Your task to perform on an android device: Show me productivity apps on the Play Store Image 0: 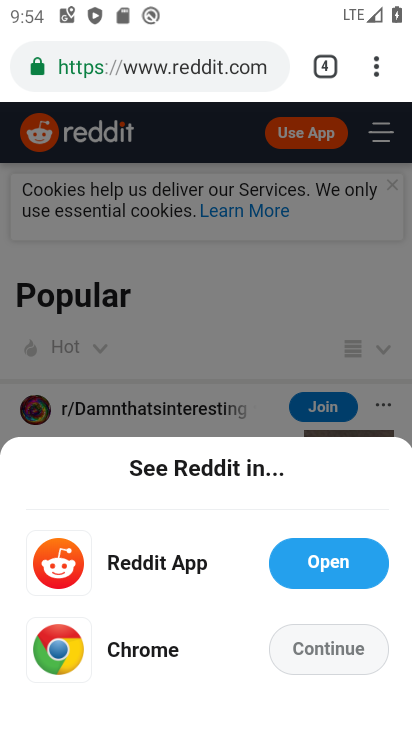
Step 0: click (213, 508)
Your task to perform on an android device: Show me productivity apps on the Play Store Image 1: 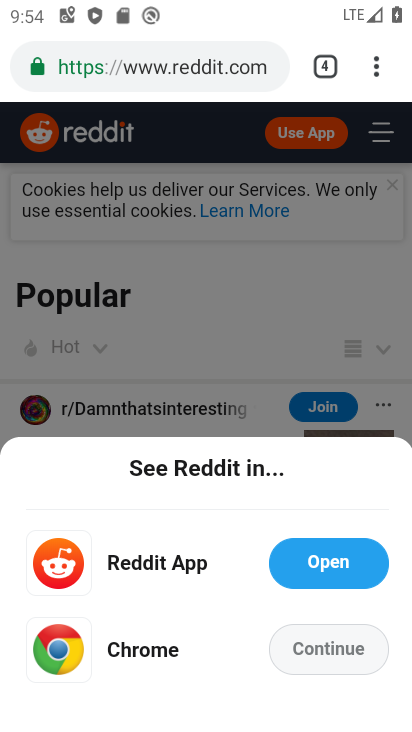
Step 1: press home button
Your task to perform on an android device: Show me productivity apps on the Play Store Image 2: 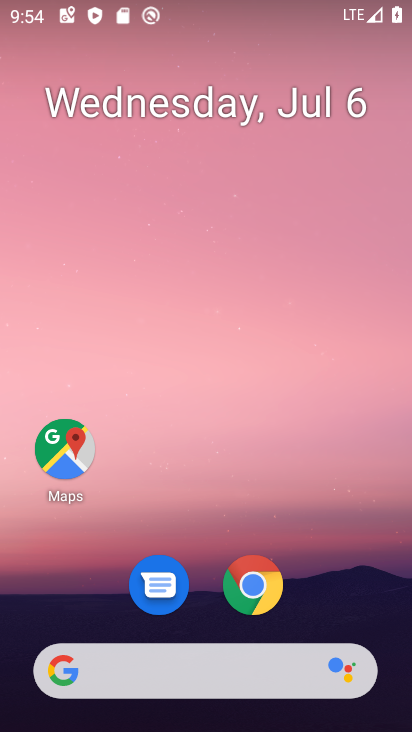
Step 2: drag from (210, 479) to (240, 2)
Your task to perform on an android device: Show me productivity apps on the Play Store Image 3: 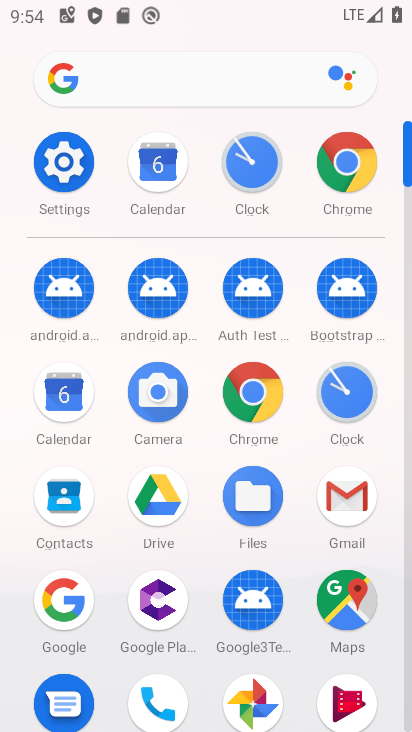
Step 3: drag from (210, 546) to (229, 204)
Your task to perform on an android device: Show me productivity apps on the Play Store Image 4: 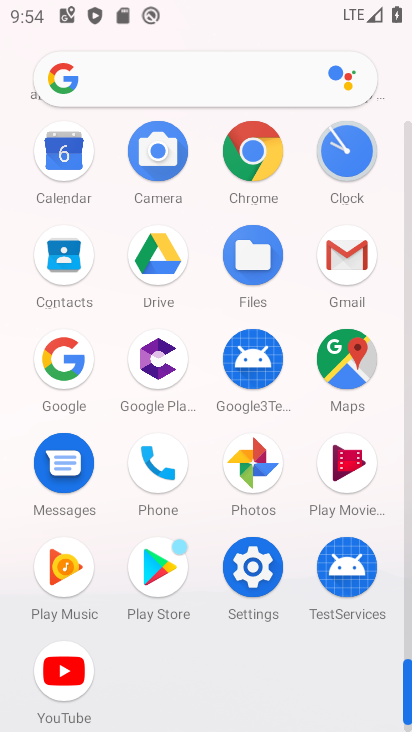
Step 4: click (162, 576)
Your task to perform on an android device: Show me productivity apps on the Play Store Image 5: 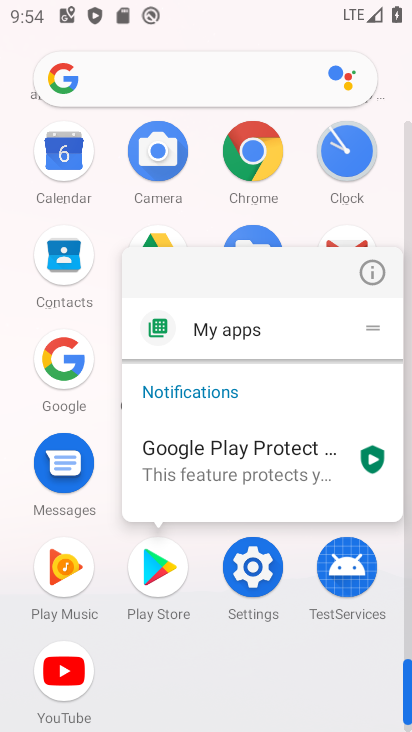
Step 5: click (162, 575)
Your task to perform on an android device: Show me productivity apps on the Play Store Image 6: 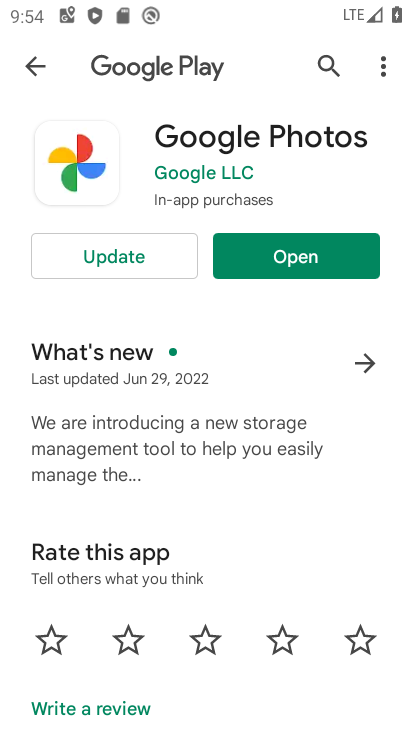
Step 6: click (36, 50)
Your task to perform on an android device: Show me productivity apps on the Play Store Image 7: 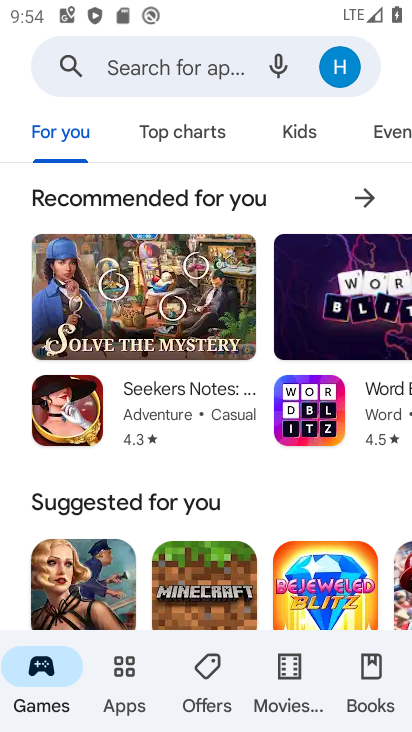
Step 7: click (116, 675)
Your task to perform on an android device: Show me productivity apps on the Play Store Image 8: 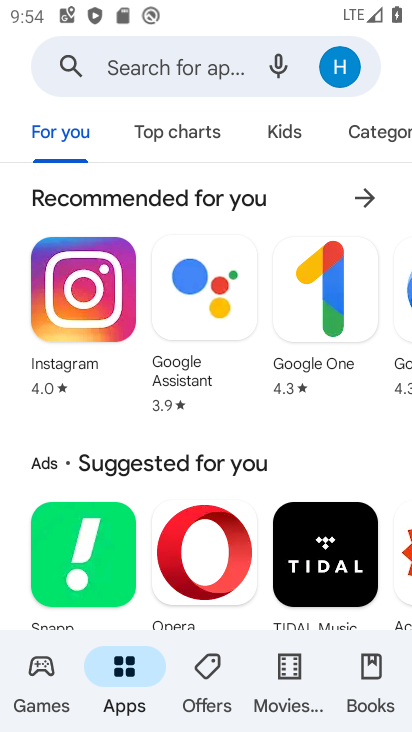
Step 8: click (369, 133)
Your task to perform on an android device: Show me productivity apps on the Play Store Image 9: 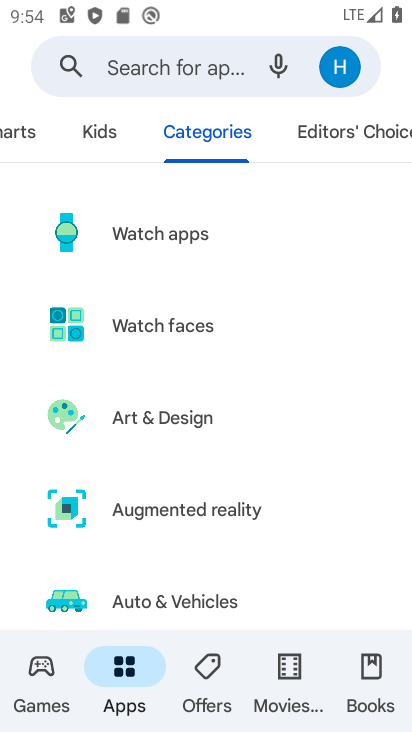
Step 9: drag from (284, 538) to (281, 102)
Your task to perform on an android device: Show me productivity apps on the Play Store Image 10: 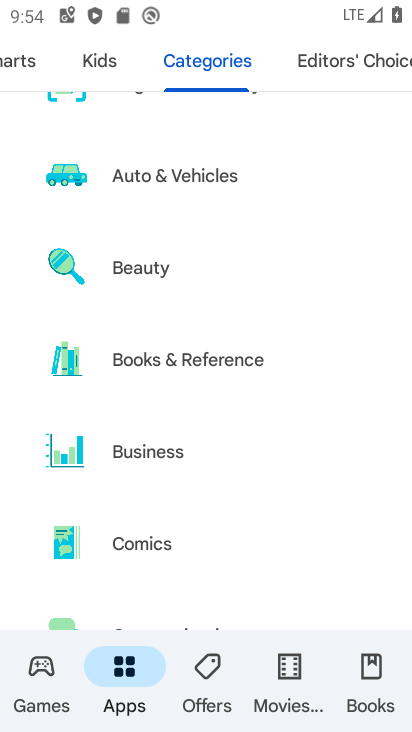
Step 10: drag from (190, 528) to (230, 82)
Your task to perform on an android device: Show me productivity apps on the Play Store Image 11: 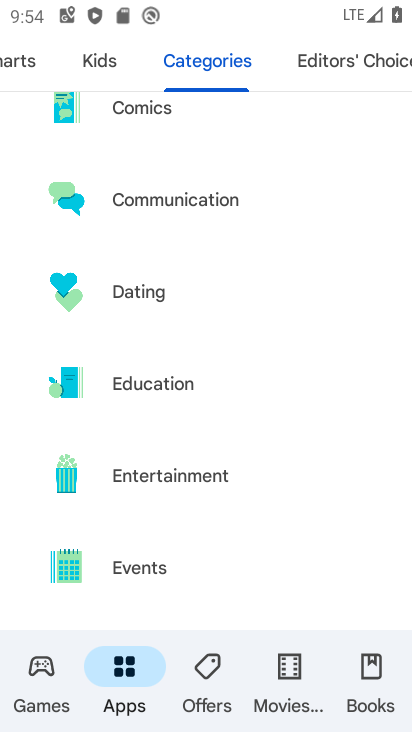
Step 11: drag from (197, 513) to (199, 147)
Your task to perform on an android device: Show me productivity apps on the Play Store Image 12: 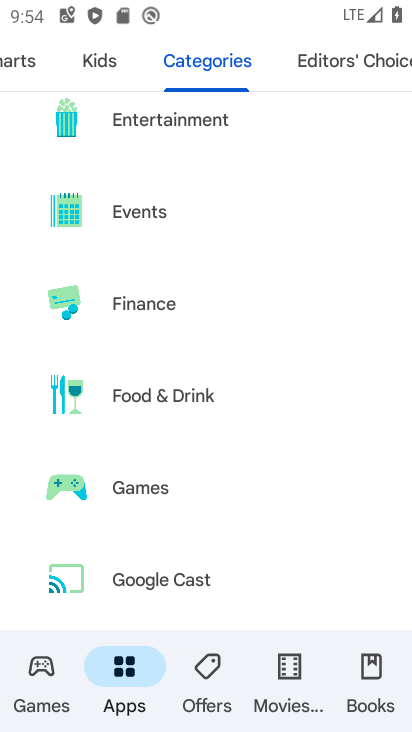
Step 12: drag from (215, 533) to (213, 166)
Your task to perform on an android device: Show me productivity apps on the Play Store Image 13: 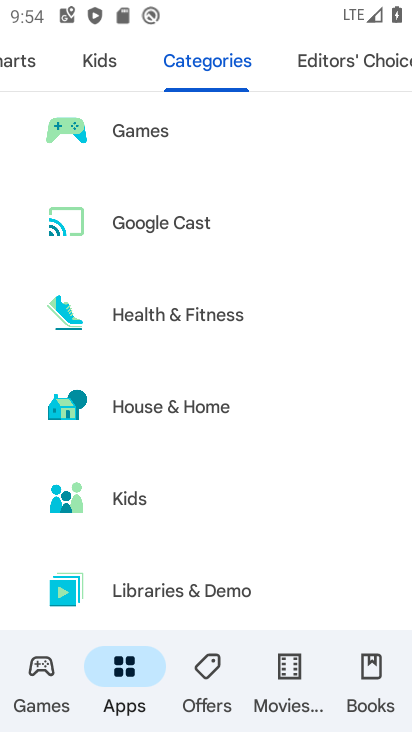
Step 13: drag from (206, 510) to (213, 118)
Your task to perform on an android device: Show me productivity apps on the Play Store Image 14: 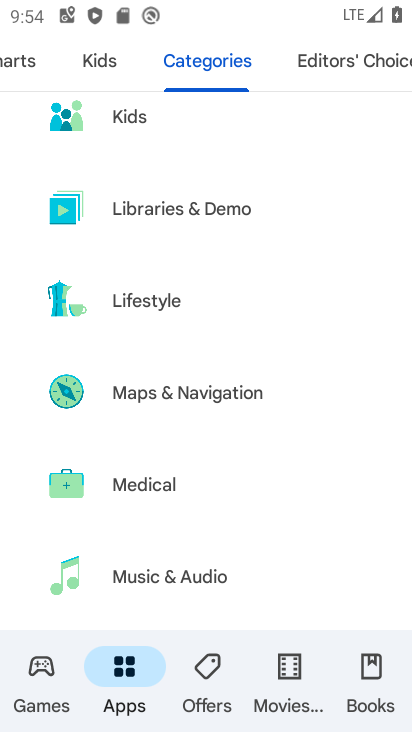
Step 14: drag from (240, 471) to (234, 143)
Your task to perform on an android device: Show me productivity apps on the Play Store Image 15: 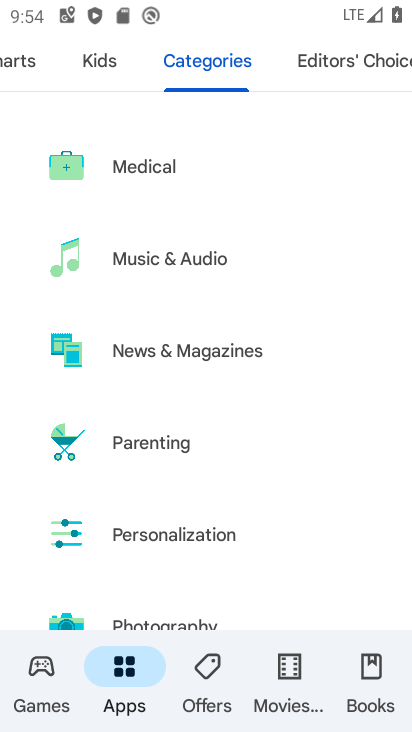
Step 15: drag from (215, 514) to (234, 216)
Your task to perform on an android device: Show me productivity apps on the Play Store Image 16: 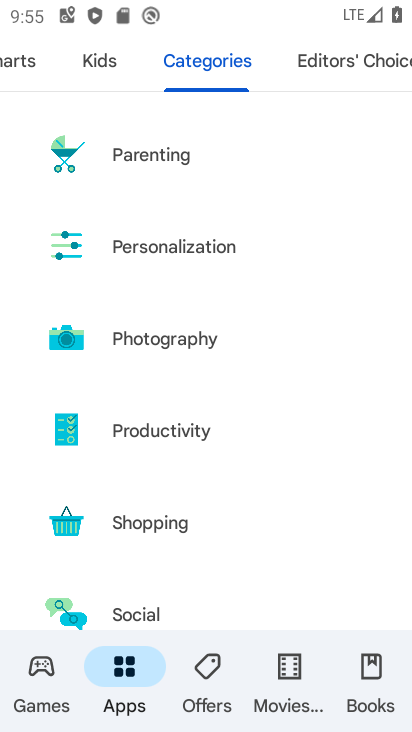
Step 16: click (205, 420)
Your task to perform on an android device: Show me productivity apps on the Play Store Image 17: 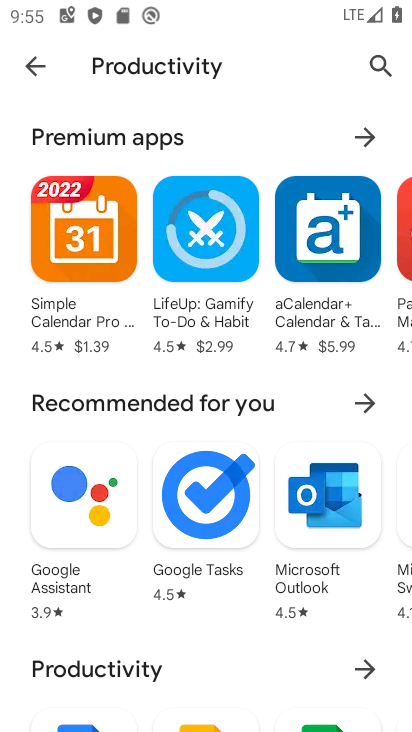
Step 17: drag from (312, 417) to (318, 164)
Your task to perform on an android device: Show me productivity apps on the Play Store Image 18: 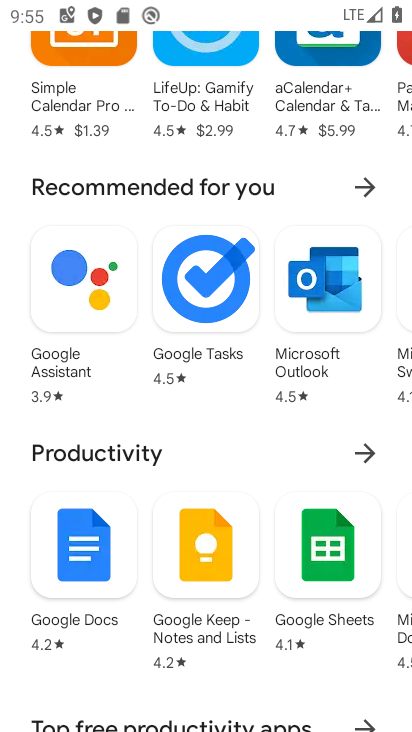
Step 18: click (357, 449)
Your task to perform on an android device: Show me productivity apps on the Play Store Image 19: 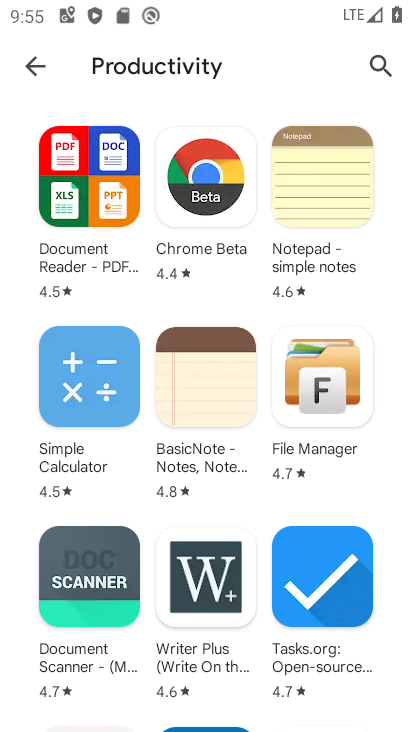
Step 19: task complete